Your task to perform on an android device: turn on javascript in the chrome app Image 0: 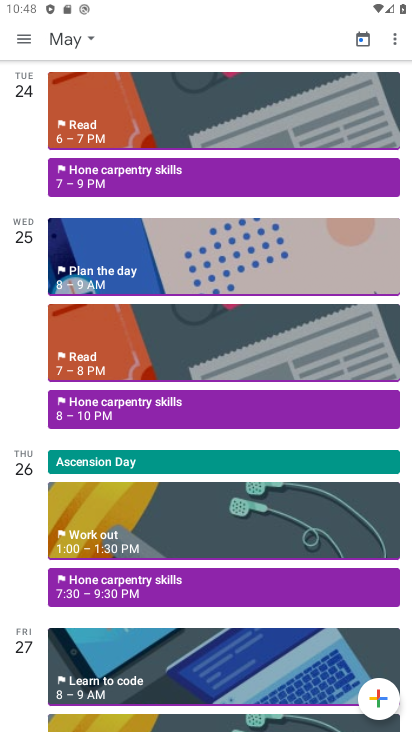
Step 0: press home button
Your task to perform on an android device: turn on javascript in the chrome app Image 1: 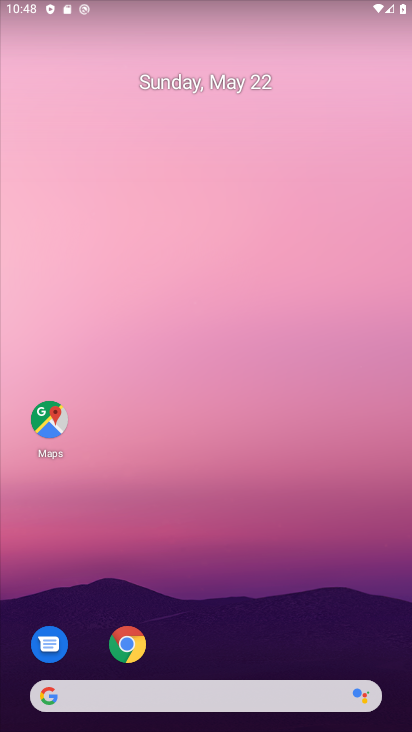
Step 1: drag from (315, 608) to (254, 102)
Your task to perform on an android device: turn on javascript in the chrome app Image 2: 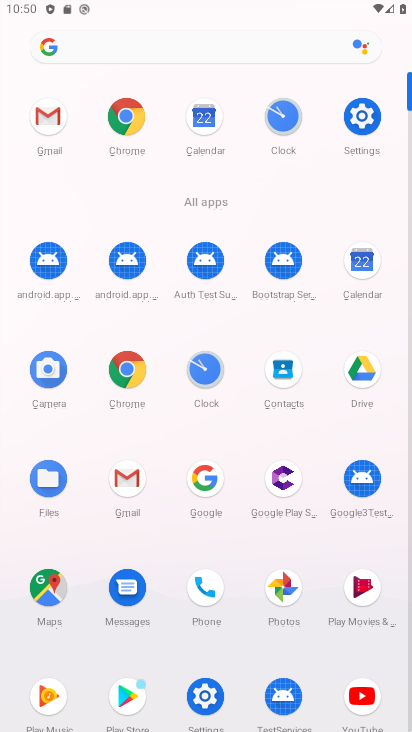
Step 2: click (129, 371)
Your task to perform on an android device: turn on javascript in the chrome app Image 3: 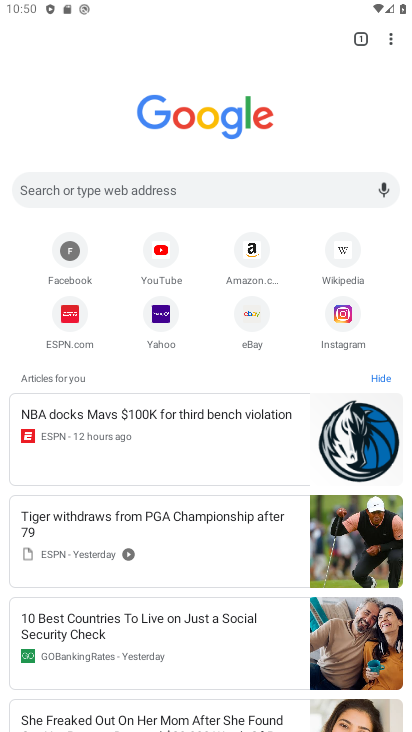
Step 3: click (394, 36)
Your task to perform on an android device: turn on javascript in the chrome app Image 4: 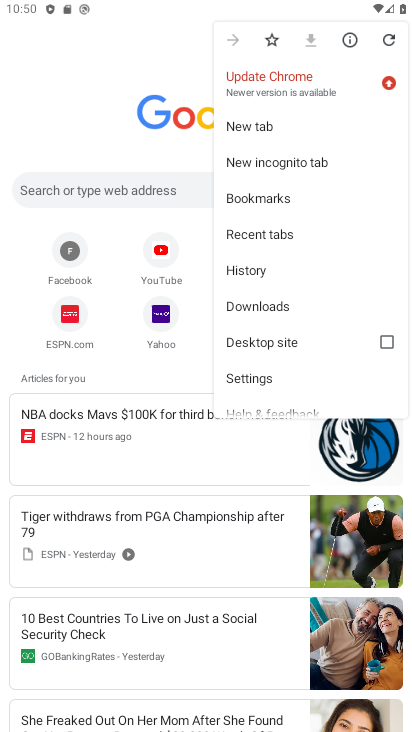
Step 4: click (256, 384)
Your task to perform on an android device: turn on javascript in the chrome app Image 5: 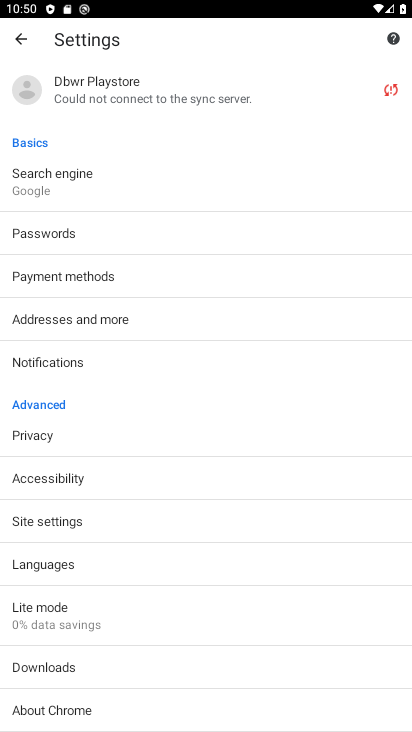
Step 5: click (162, 522)
Your task to perform on an android device: turn on javascript in the chrome app Image 6: 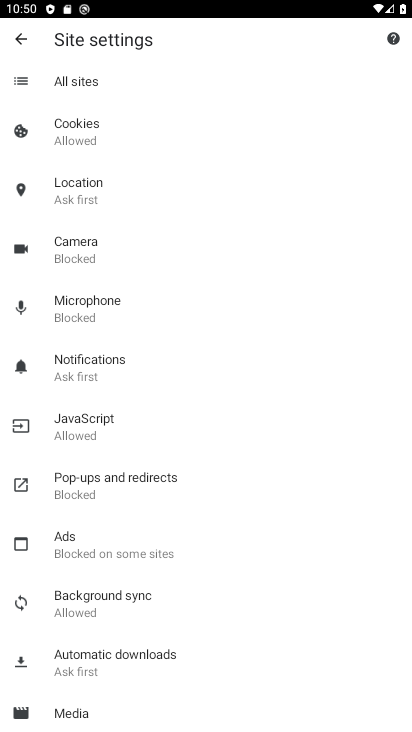
Step 6: click (201, 435)
Your task to perform on an android device: turn on javascript in the chrome app Image 7: 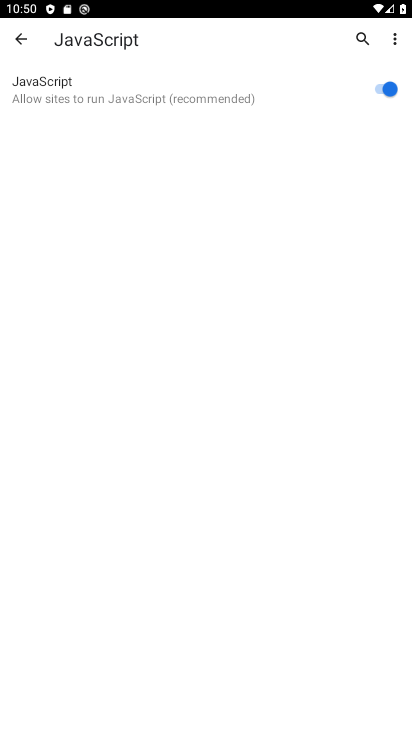
Step 7: task complete